Your task to perform on an android device: Search for seafood restaurants on Google Maps Image 0: 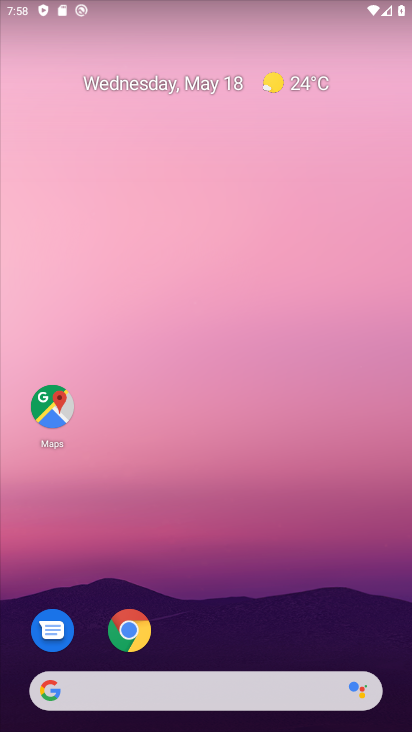
Step 0: click (57, 413)
Your task to perform on an android device: Search for seafood restaurants on Google Maps Image 1: 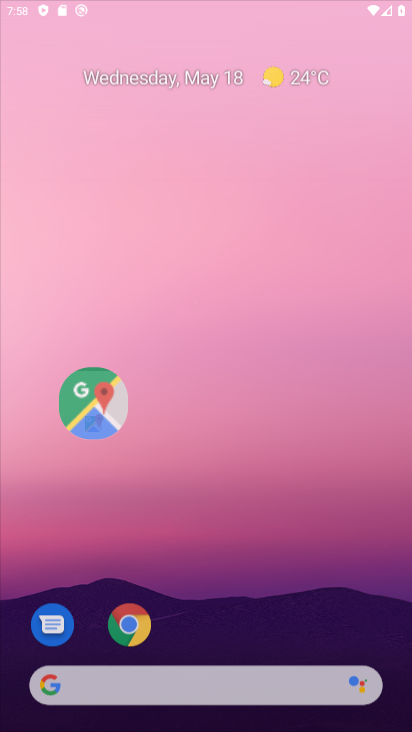
Step 1: click (57, 413)
Your task to perform on an android device: Search for seafood restaurants on Google Maps Image 2: 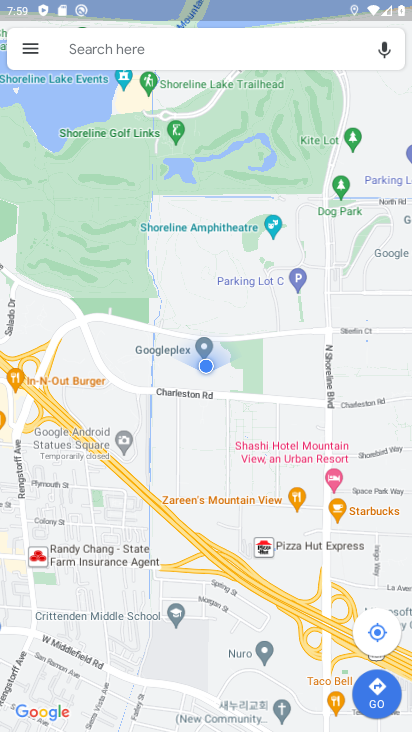
Step 2: click (158, 60)
Your task to perform on an android device: Search for seafood restaurants on Google Maps Image 3: 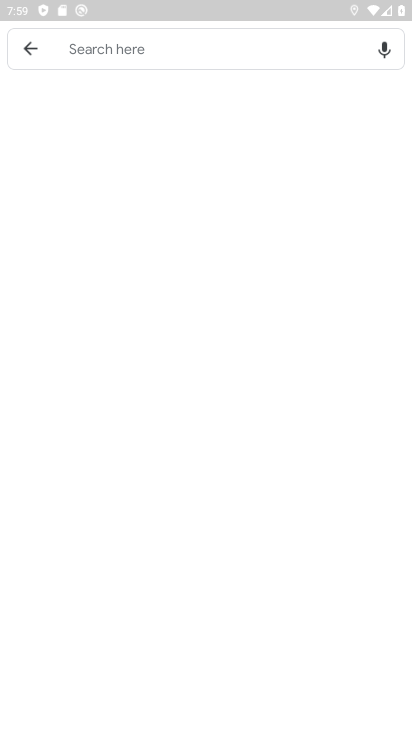
Step 3: click (110, 49)
Your task to perform on an android device: Search for seafood restaurants on Google Maps Image 4: 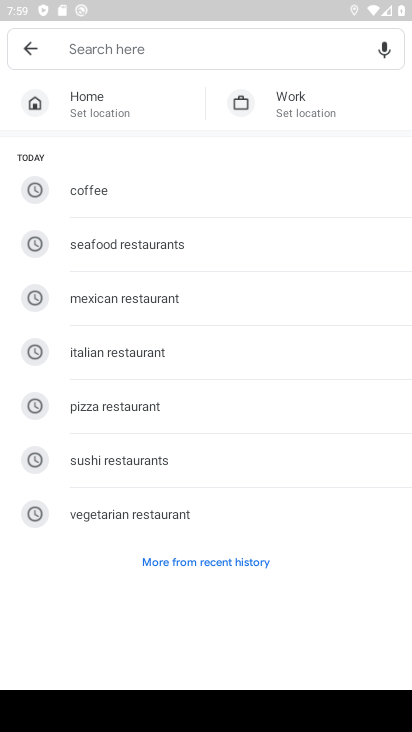
Step 4: click (116, 41)
Your task to perform on an android device: Search for seafood restaurants on Google Maps Image 5: 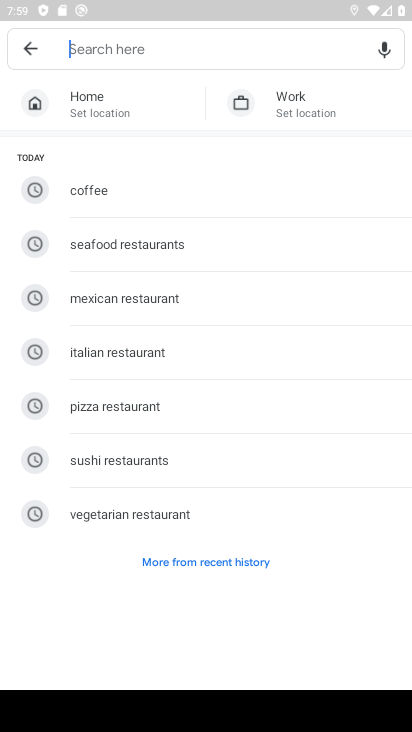
Step 5: click (116, 41)
Your task to perform on an android device: Search for seafood restaurants on Google Maps Image 6: 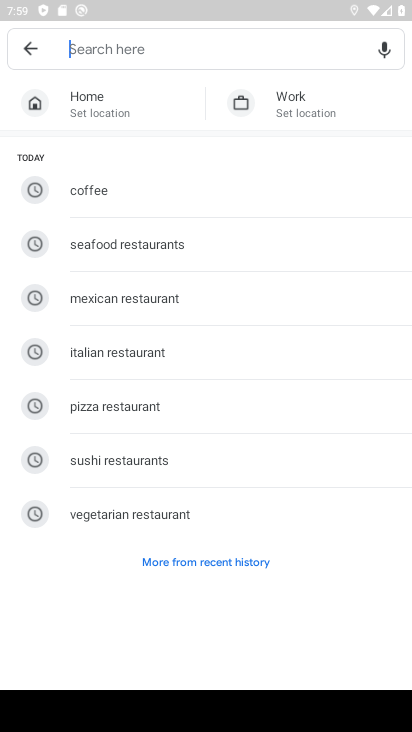
Step 6: click (104, 50)
Your task to perform on an android device: Search for seafood restaurants on Google Maps Image 7: 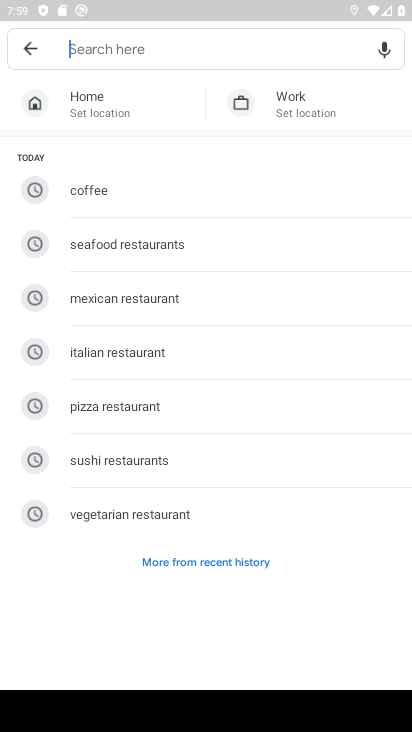
Step 7: click (159, 244)
Your task to perform on an android device: Search for seafood restaurants on Google Maps Image 8: 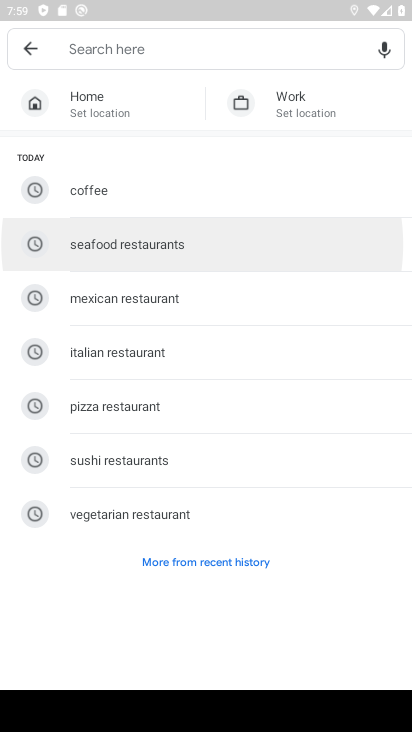
Step 8: click (159, 244)
Your task to perform on an android device: Search for seafood restaurants on Google Maps Image 9: 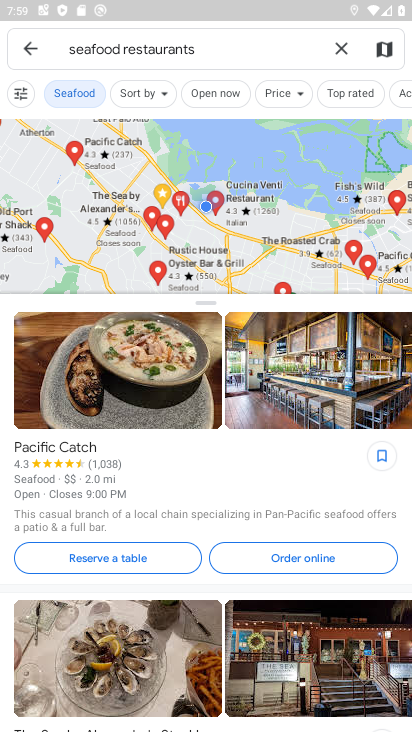
Step 9: click (110, 243)
Your task to perform on an android device: Search for seafood restaurants on Google Maps Image 10: 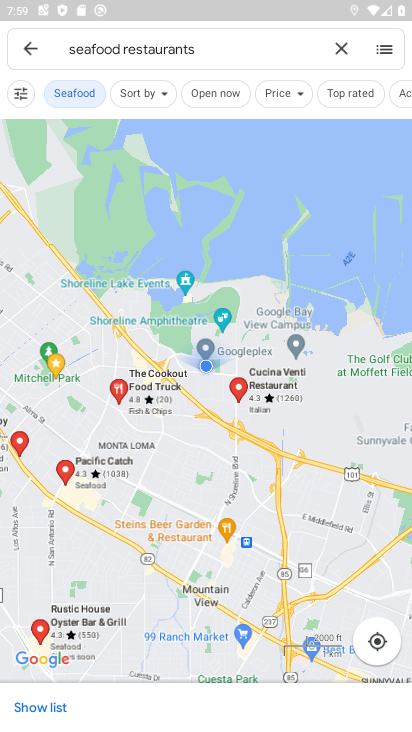
Step 10: click (110, 243)
Your task to perform on an android device: Search for seafood restaurants on Google Maps Image 11: 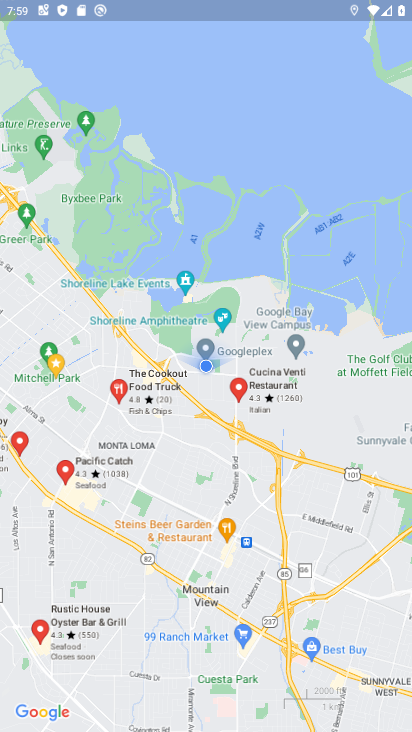
Step 11: task complete